Your task to perform on an android device: clear all cookies in the chrome app Image 0: 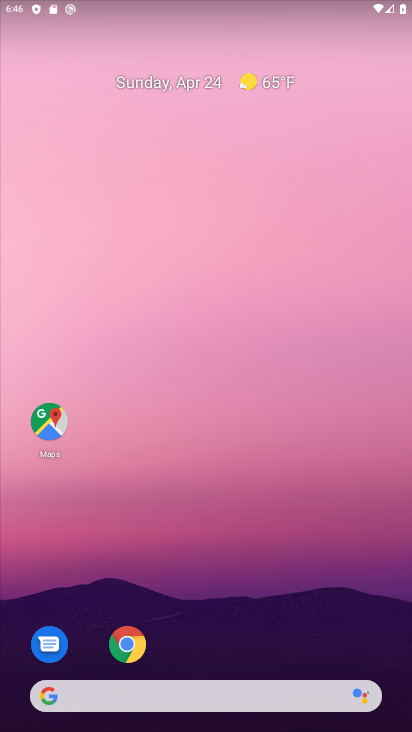
Step 0: click (120, 639)
Your task to perform on an android device: clear all cookies in the chrome app Image 1: 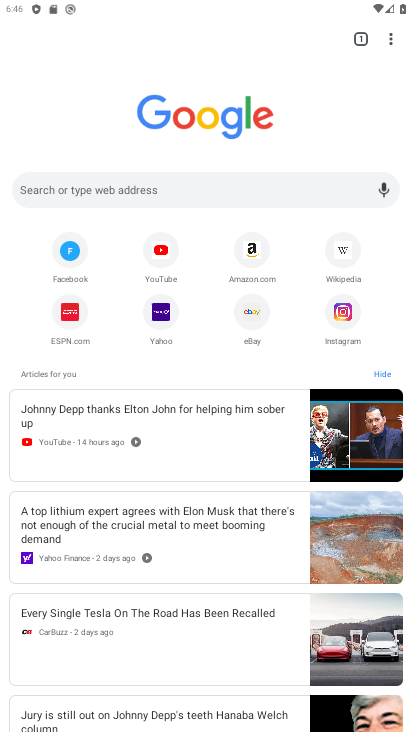
Step 1: click (390, 36)
Your task to perform on an android device: clear all cookies in the chrome app Image 2: 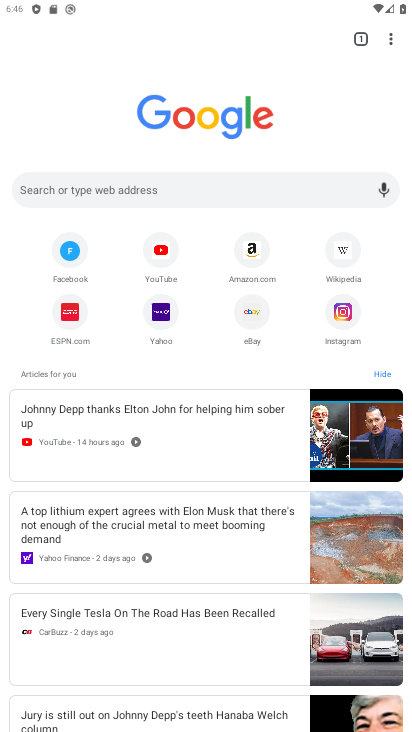
Step 2: click (385, 36)
Your task to perform on an android device: clear all cookies in the chrome app Image 3: 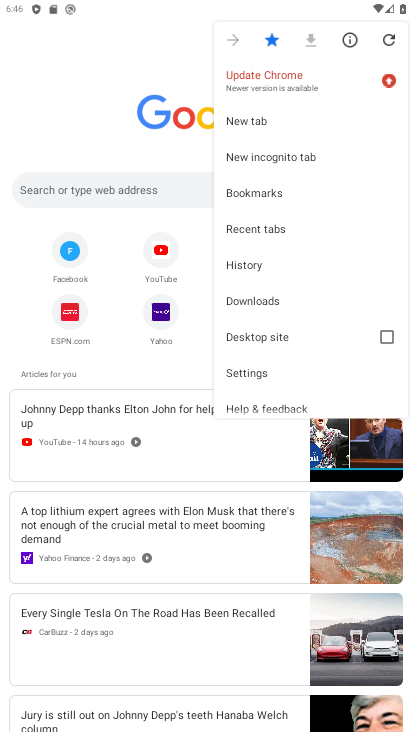
Step 3: click (272, 262)
Your task to perform on an android device: clear all cookies in the chrome app Image 4: 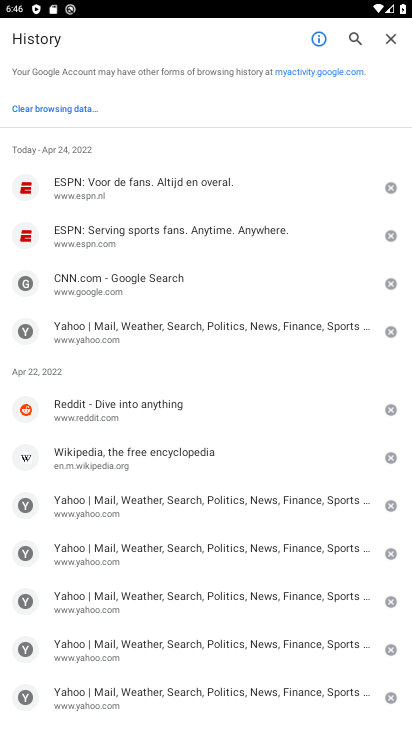
Step 4: click (53, 107)
Your task to perform on an android device: clear all cookies in the chrome app Image 5: 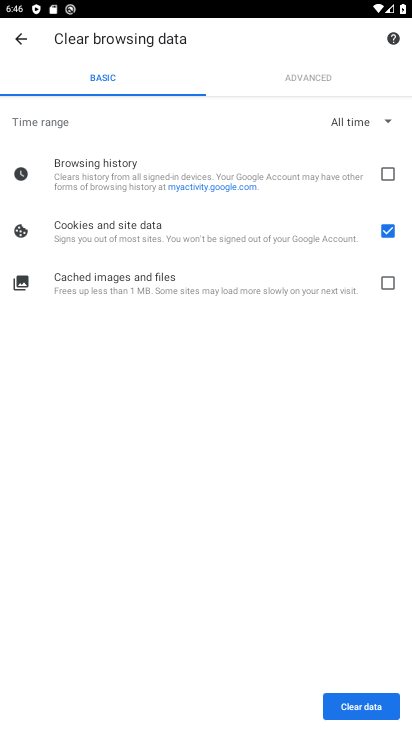
Step 5: click (361, 715)
Your task to perform on an android device: clear all cookies in the chrome app Image 6: 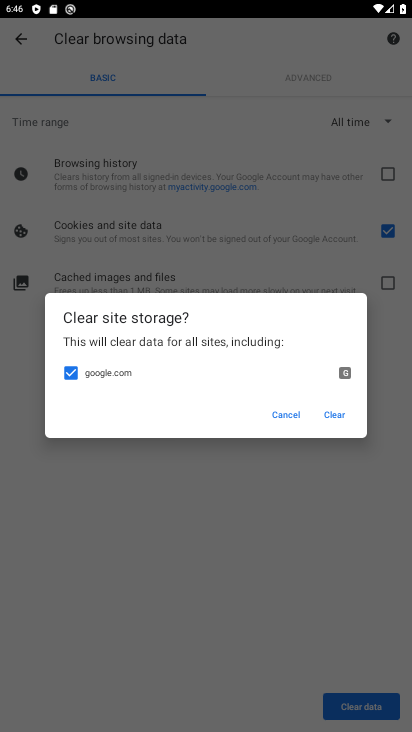
Step 6: click (335, 408)
Your task to perform on an android device: clear all cookies in the chrome app Image 7: 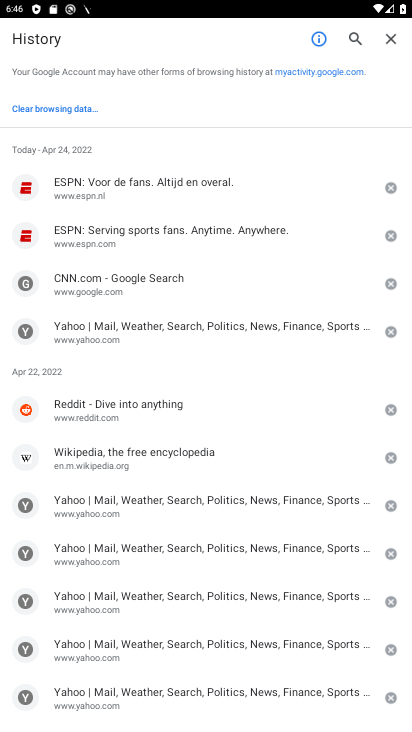
Step 7: task complete